Your task to perform on an android device: Open privacy settings Image 0: 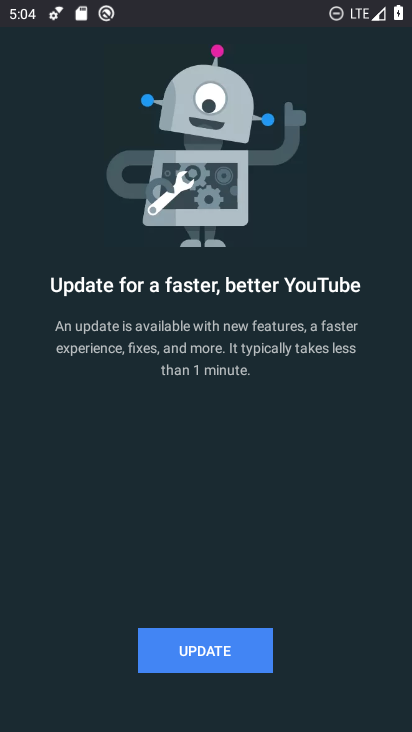
Step 0: press home button
Your task to perform on an android device: Open privacy settings Image 1: 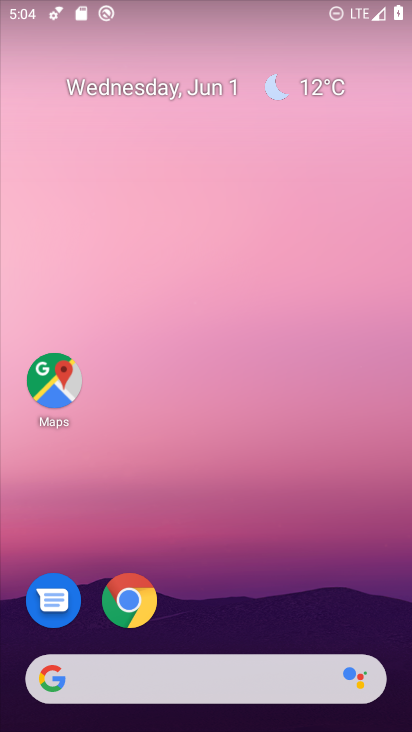
Step 1: drag from (382, 637) to (335, 52)
Your task to perform on an android device: Open privacy settings Image 2: 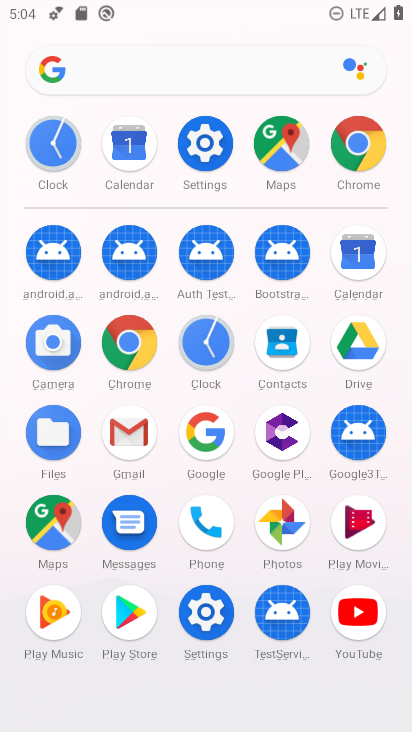
Step 2: click (208, 617)
Your task to perform on an android device: Open privacy settings Image 3: 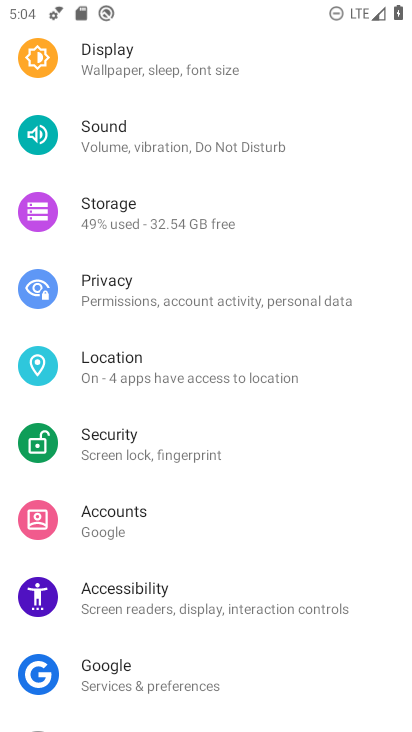
Step 3: click (113, 281)
Your task to perform on an android device: Open privacy settings Image 4: 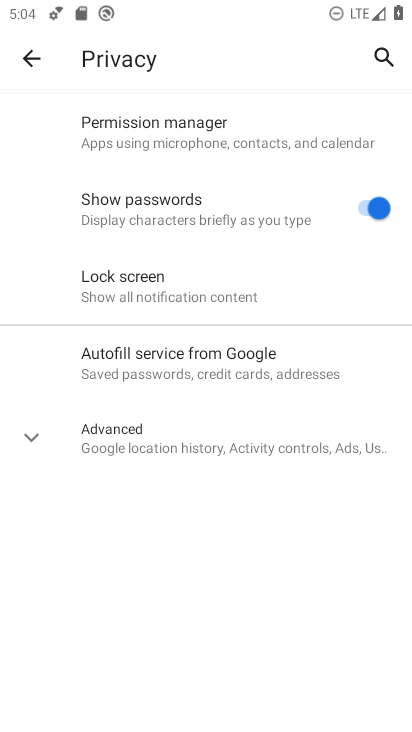
Step 4: click (32, 432)
Your task to perform on an android device: Open privacy settings Image 5: 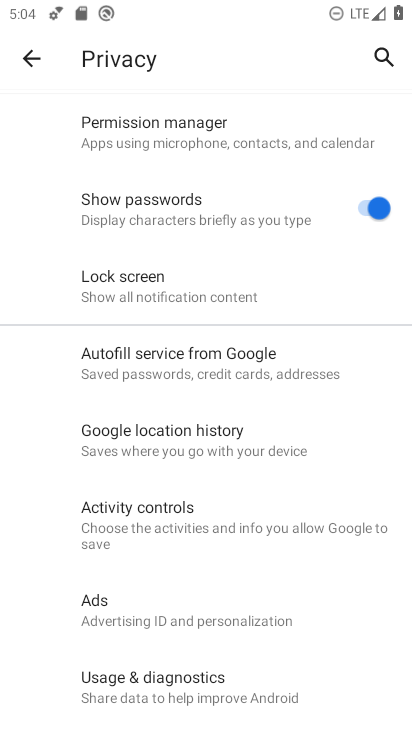
Step 5: task complete